Your task to perform on an android device: Play the last video I watched on Youtube Image 0: 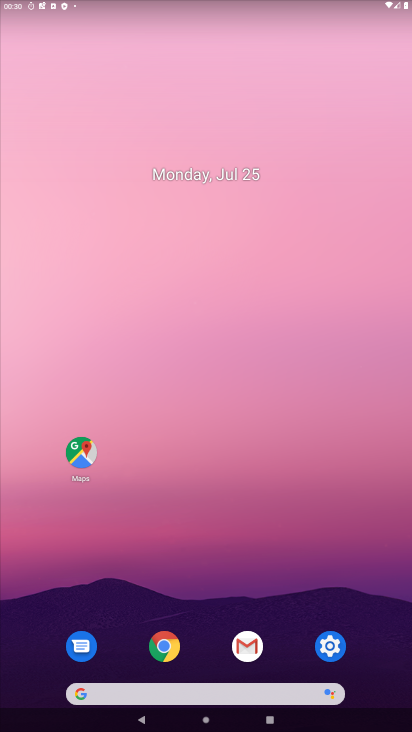
Step 0: drag from (306, 696) to (378, 259)
Your task to perform on an android device: Play the last video I watched on Youtube Image 1: 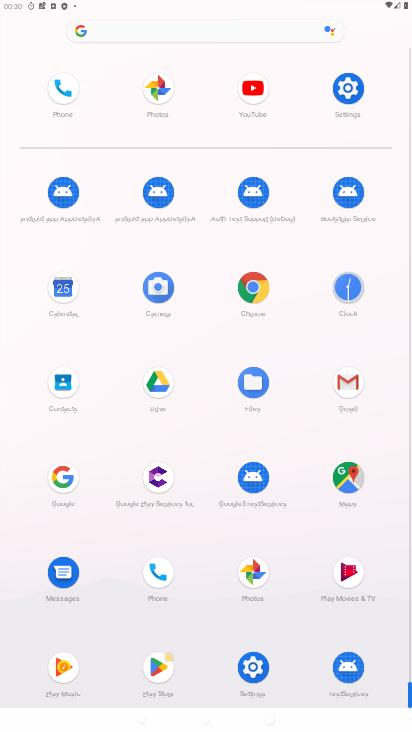
Step 1: click (240, 92)
Your task to perform on an android device: Play the last video I watched on Youtube Image 2: 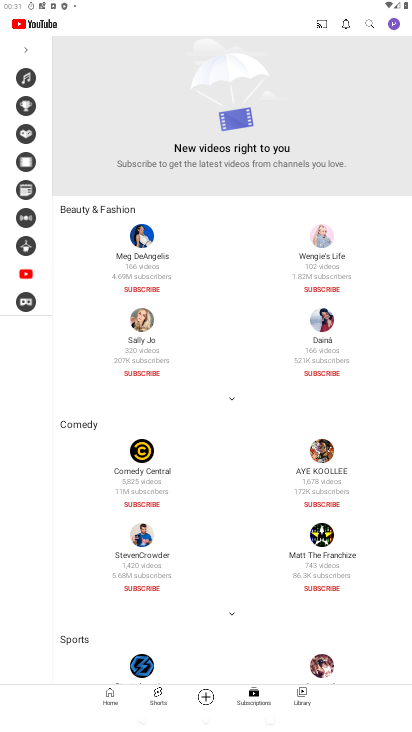
Step 2: click (300, 706)
Your task to perform on an android device: Play the last video I watched on Youtube Image 3: 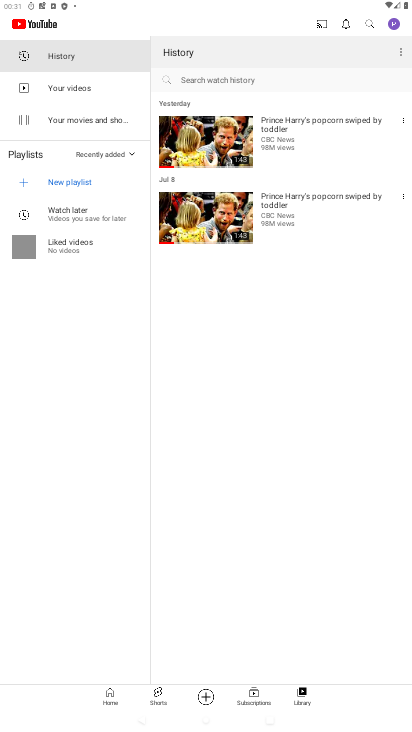
Step 3: click (213, 139)
Your task to perform on an android device: Play the last video I watched on Youtube Image 4: 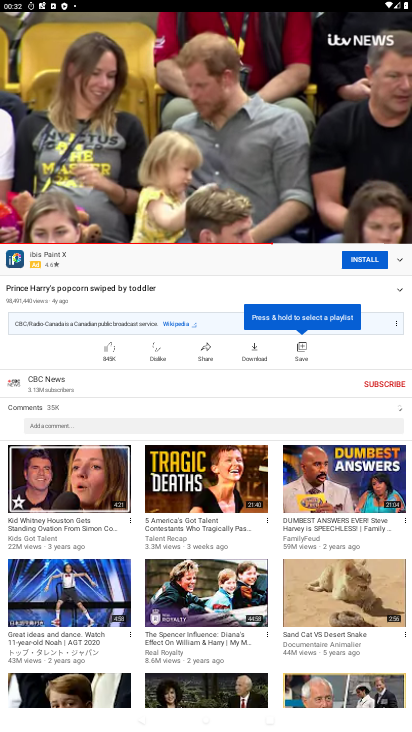
Step 4: task complete